Your task to perform on an android device: Go to Maps Image 0: 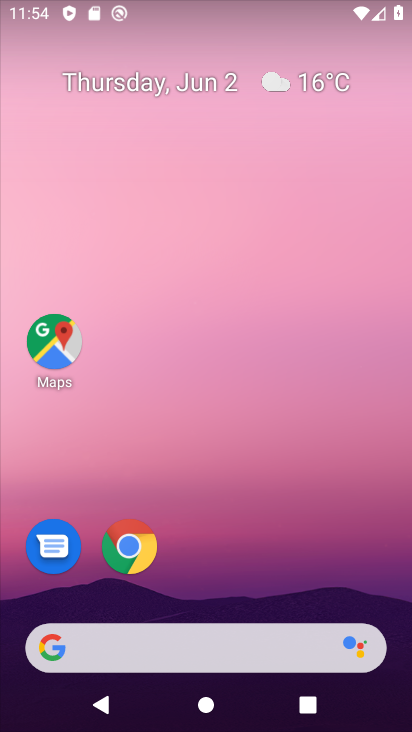
Step 0: click (46, 329)
Your task to perform on an android device: Go to Maps Image 1: 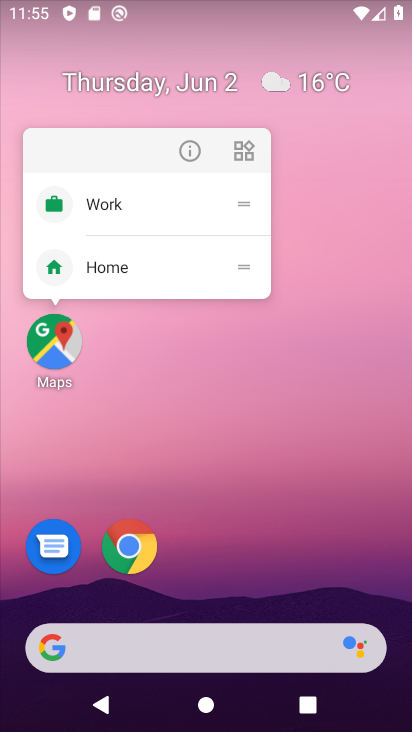
Step 1: click (48, 334)
Your task to perform on an android device: Go to Maps Image 2: 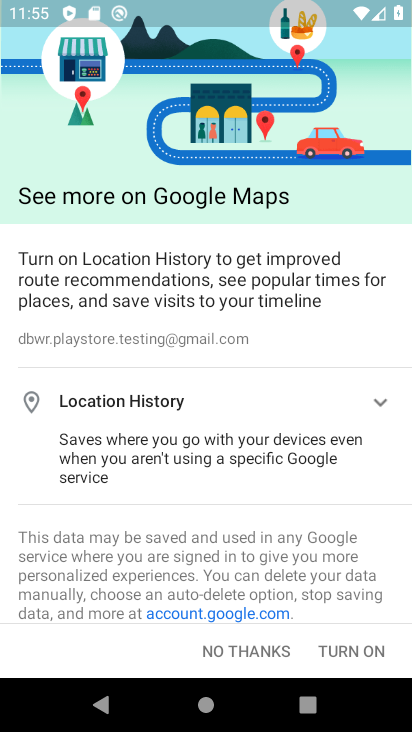
Step 2: click (258, 655)
Your task to perform on an android device: Go to Maps Image 3: 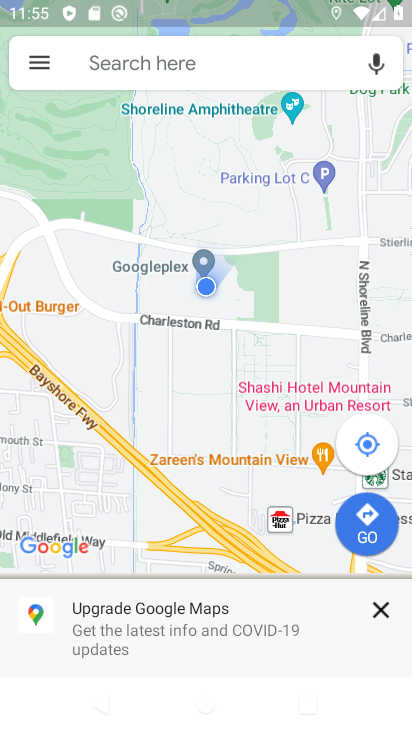
Step 3: task complete